Your task to perform on an android device: Go to Android settings Image 0: 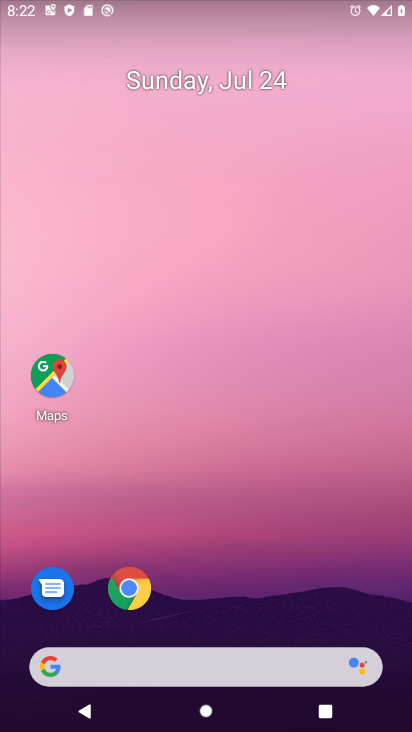
Step 0: drag from (259, 563) to (296, 0)
Your task to perform on an android device: Go to Android settings Image 1: 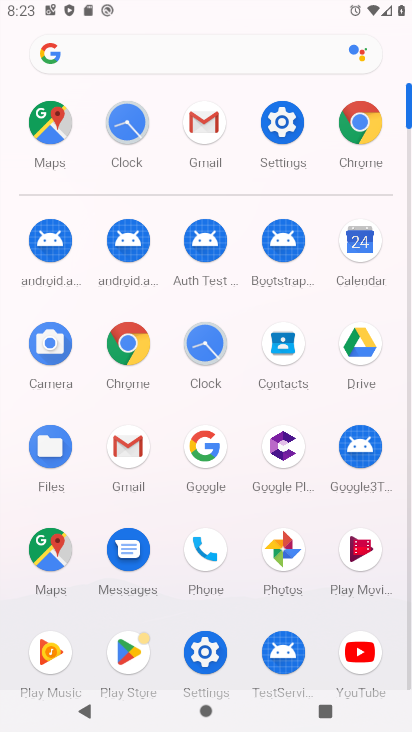
Step 1: click (280, 134)
Your task to perform on an android device: Go to Android settings Image 2: 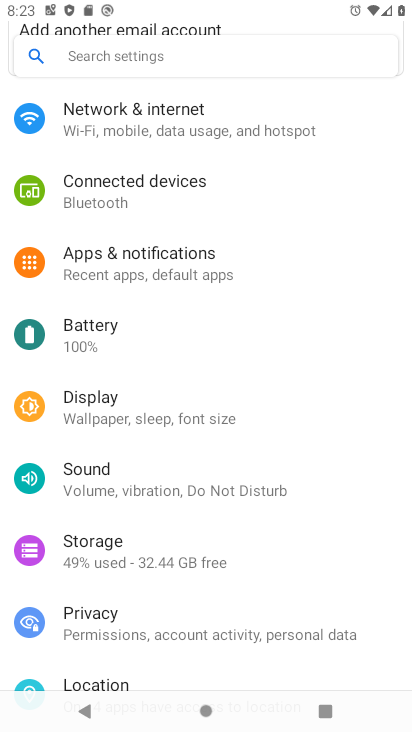
Step 2: task complete